Your task to perform on an android device: Open Google Chrome Image 0: 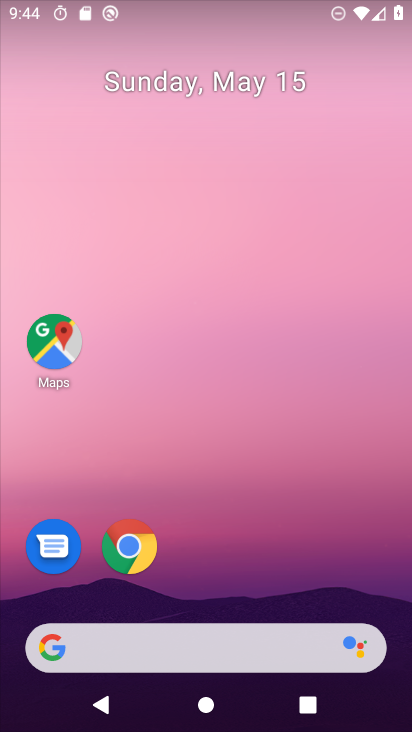
Step 0: click (133, 544)
Your task to perform on an android device: Open Google Chrome Image 1: 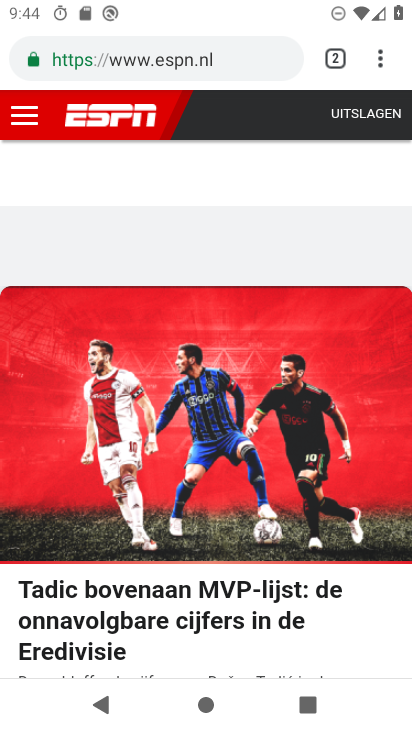
Step 1: task complete